Your task to perform on an android device: change notifications settings Image 0: 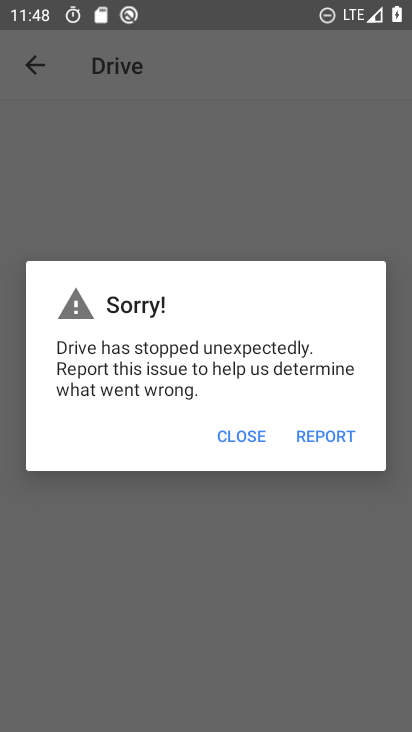
Step 0: drag from (197, 615) to (202, 100)
Your task to perform on an android device: change notifications settings Image 1: 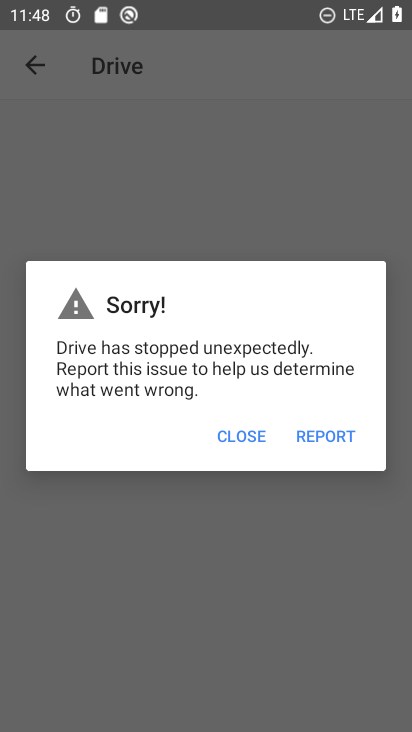
Step 1: press home button
Your task to perform on an android device: change notifications settings Image 2: 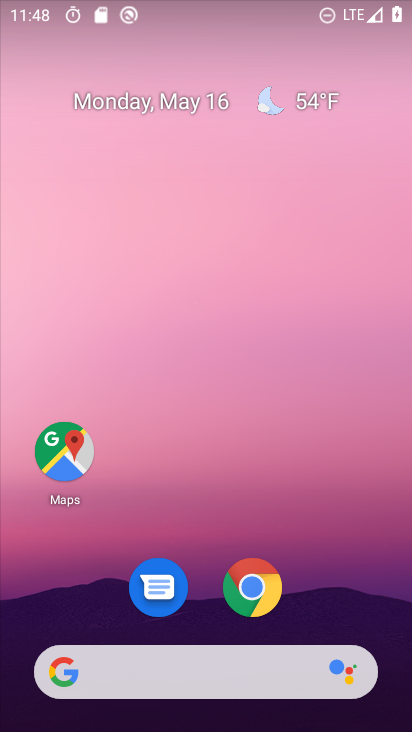
Step 2: drag from (202, 598) to (277, 225)
Your task to perform on an android device: change notifications settings Image 3: 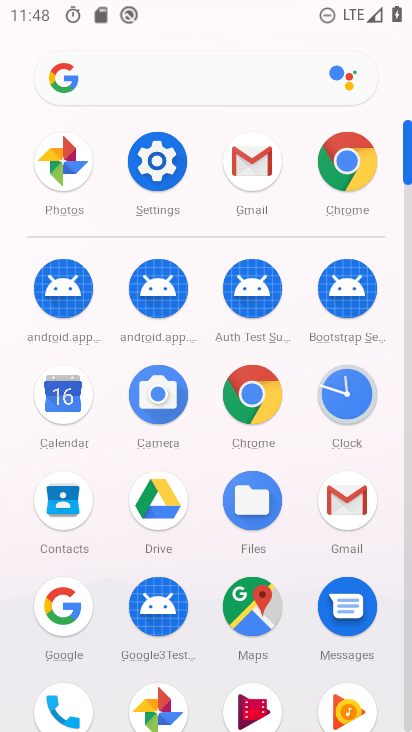
Step 3: drag from (209, 681) to (191, 246)
Your task to perform on an android device: change notifications settings Image 4: 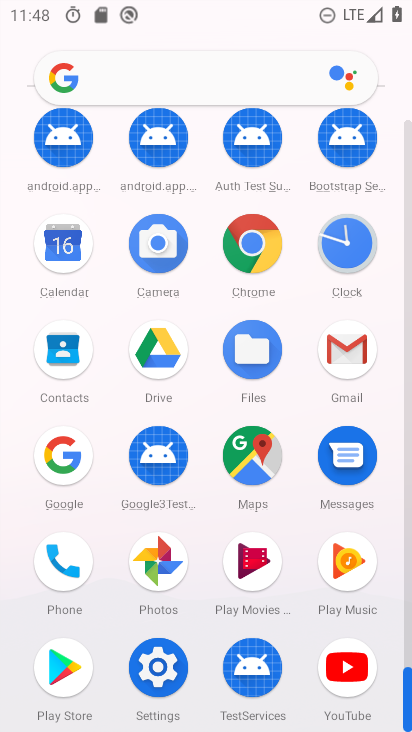
Step 4: drag from (205, 641) to (225, 316)
Your task to perform on an android device: change notifications settings Image 5: 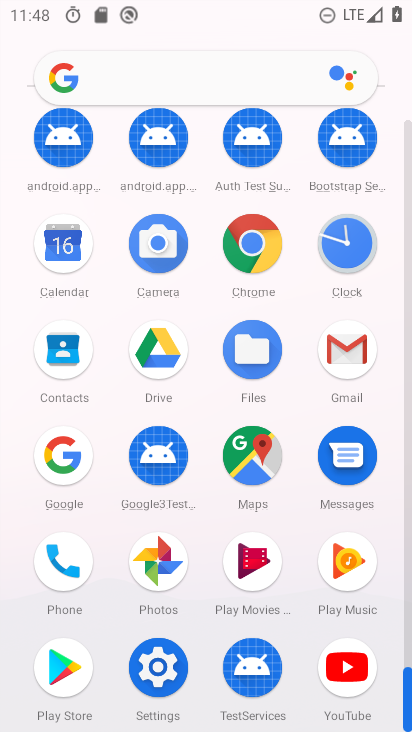
Step 5: click (149, 672)
Your task to perform on an android device: change notifications settings Image 6: 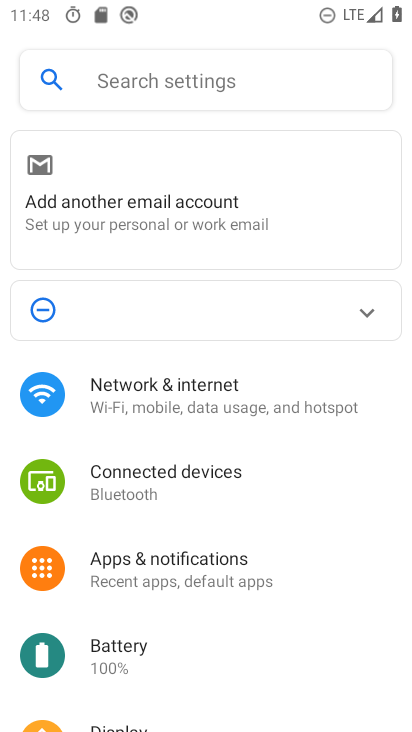
Step 6: click (188, 570)
Your task to perform on an android device: change notifications settings Image 7: 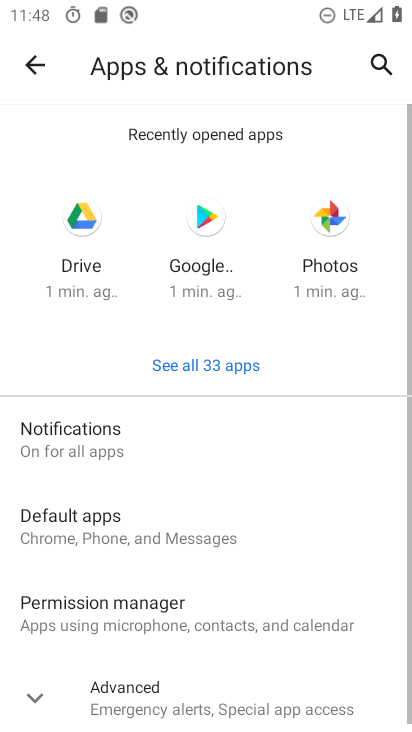
Step 7: drag from (266, 599) to (371, 197)
Your task to perform on an android device: change notifications settings Image 8: 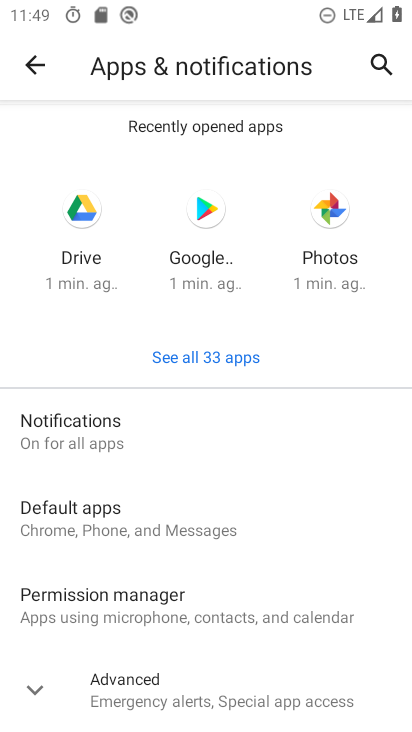
Step 8: drag from (199, 634) to (235, 304)
Your task to perform on an android device: change notifications settings Image 9: 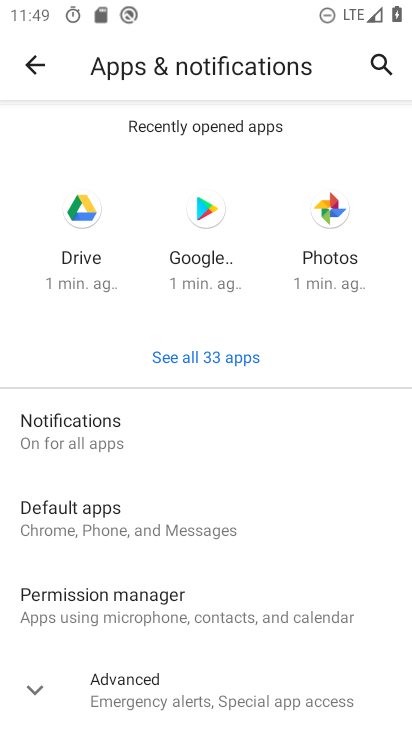
Step 9: click (156, 431)
Your task to perform on an android device: change notifications settings Image 10: 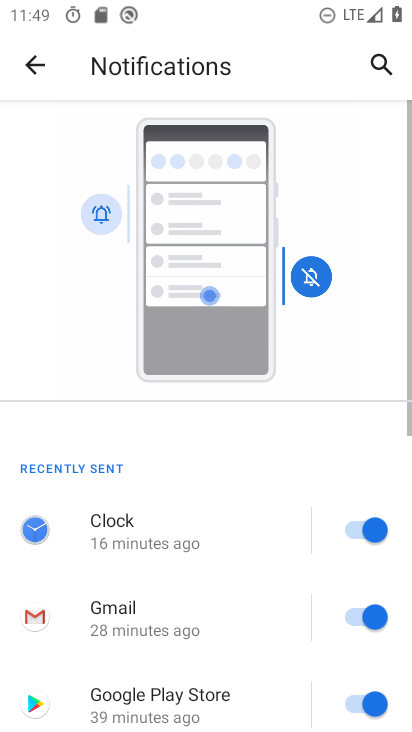
Step 10: drag from (251, 584) to (336, 22)
Your task to perform on an android device: change notifications settings Image 11: 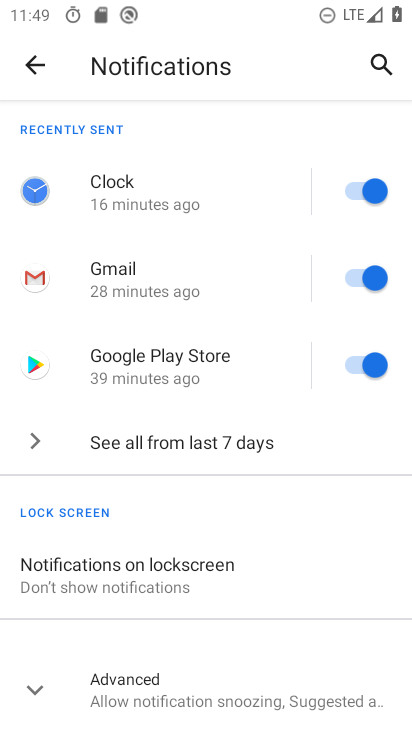
Step 11: click (152, 687)
Your task to perform on an android device: change notifications settings Image 12: 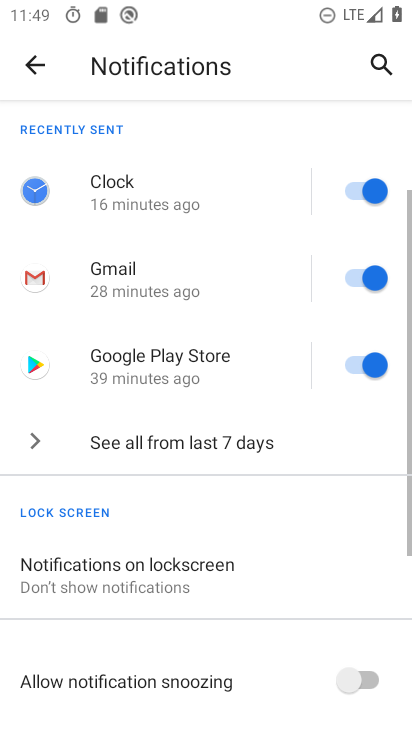
Step 12: drag from (230, 588) to (259, 186)
Your task to perform on an android device: change notifications settings Image 13: 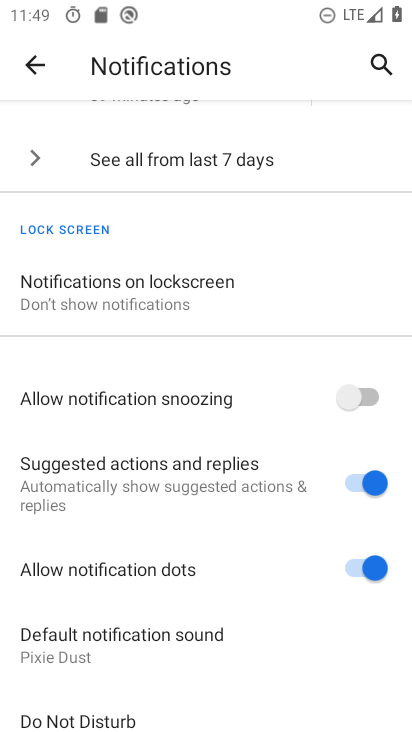
Step 13: drag from (215, 171) to (291, 541)
Your task to perform on an android device: change notifications settings Image 14: 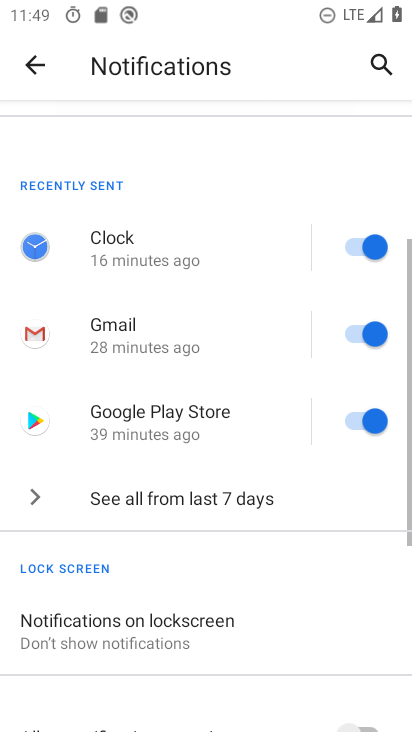
Step 14: drag from (254, 264) to (329, 731)
Your task to perform on an android device: change notifications settings Image 15: 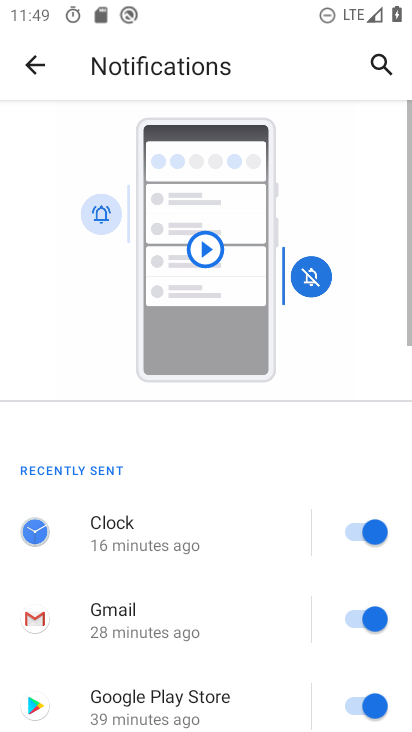
Step 15: click (376, 623)
Your task to perform on an android device: change notifications settings Image 16: 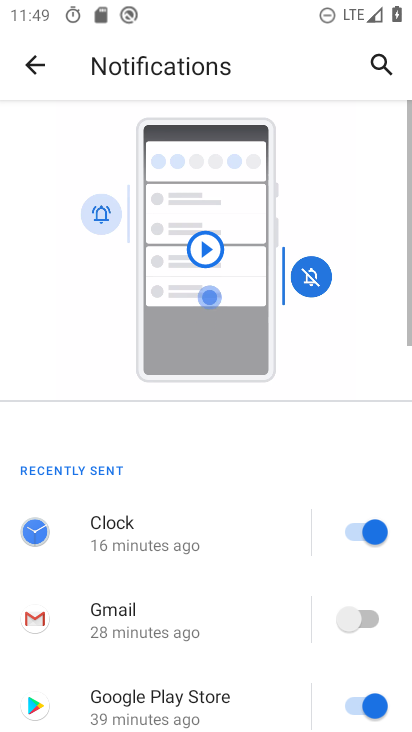
Step 16: task complete